Your task to perform on an android device: move a message to another label in the gmail app Image 0: 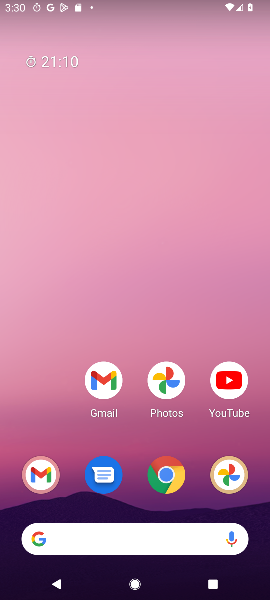
Step 0: press home button
Your task to perform on an android device: move a message to another label in the gmail app Image 1: 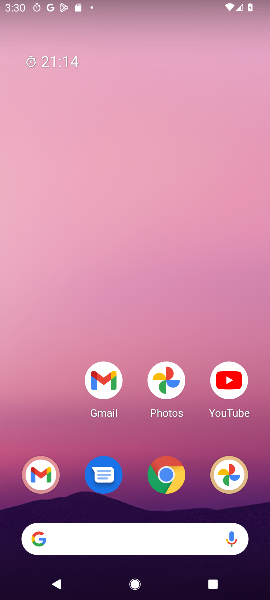
Step 1: drag from (60, 447) to (60, 220)
Your task to perform on an android device: move a message to another label in the gmail app Image 2: 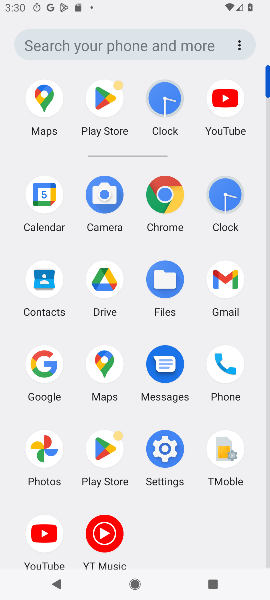
Step 2: click (231, 280)
Your task to perform on an android device: move a message to another label in the gmail app Image 3: 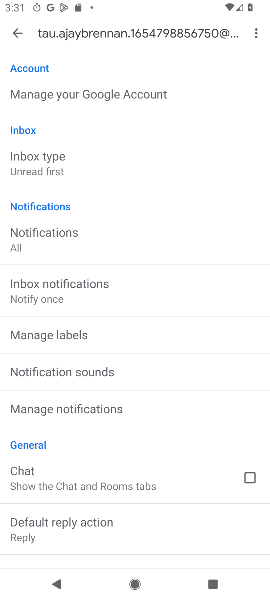
Step 3: press back button
Your task to perform on an android device: move a message to another label in the gmail app Image 4: 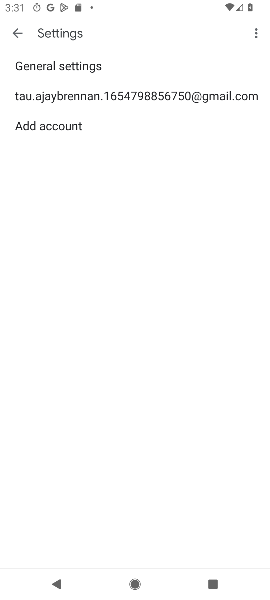
Step 4: press back button
Your task to perform on an android device: move a message to another label in the gmail app Image 5: 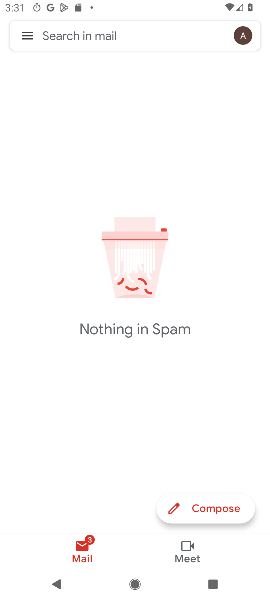
Step 5: click (27, 32)
Your task to perform on an android device: move a message to another label in the gmail app Image 6: 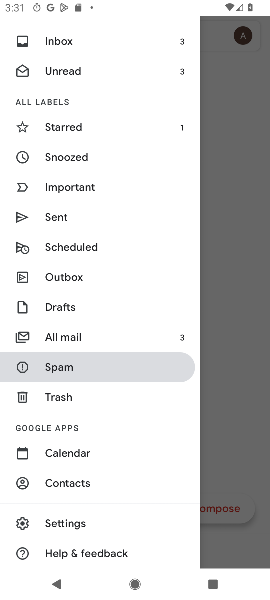
Step 6: click (117, 339)
Your task to perform on an android device: move a message to another label in the gmail app Image 7: 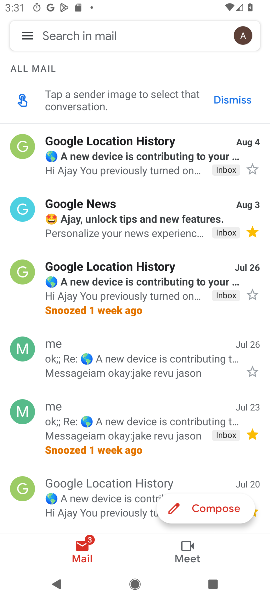
Step 7: click (165, 366)
Your task to perform on an android device: move a message to another label in the gmail app Image 8: 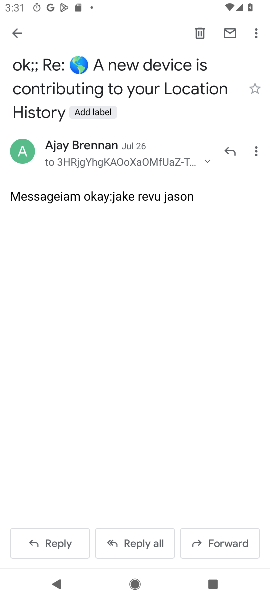
Step 8: click (257, 32)
Your task to perform on an android device: move a message to another label in the gmail app Image 9: 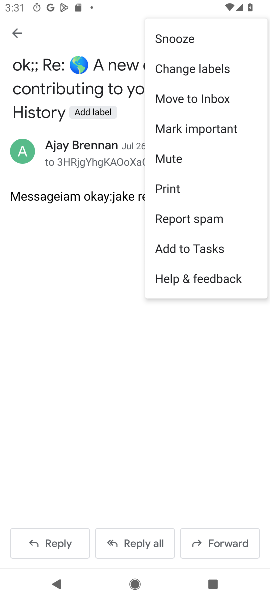
Step 9: click (219, 100)
Your task to perform on an android device: move a message to another label in the gmail app Image 10: 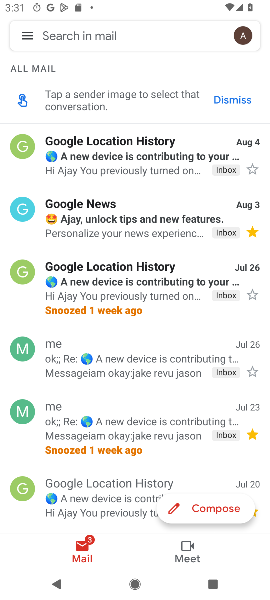
Step 10: task complete